Your task to perform on an android device: toggle priority inbox in the gmail app Image 0: 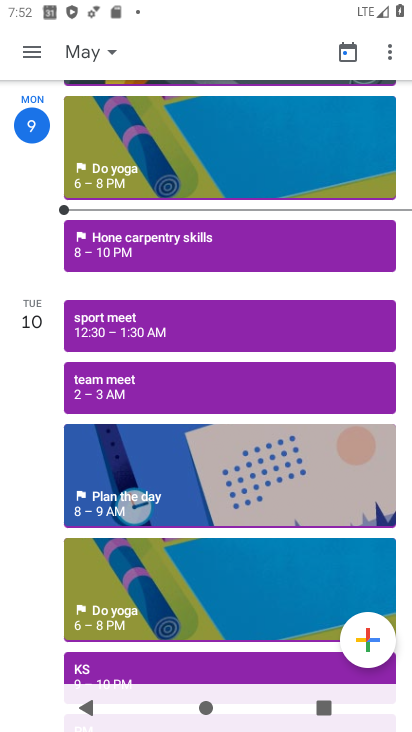
Step 0: press home button
Your task to perform on an android device: toggle priority inbox in the gmail app Image 1: 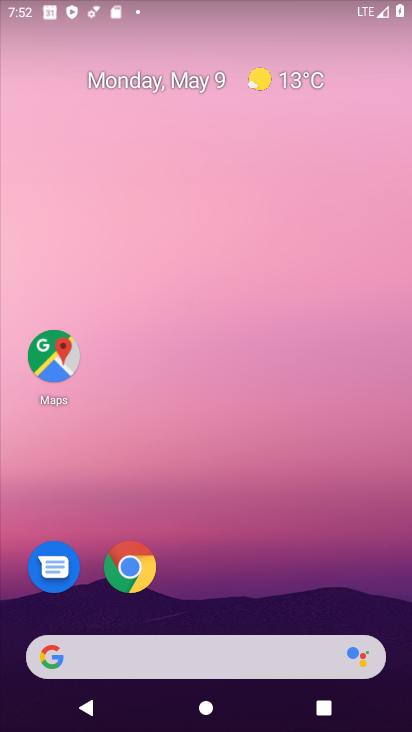
Step 1: drag from (202, 545) to (201, 79)
Your task to perform on an android device: toggle priority inbox in the gmail app Image 2: 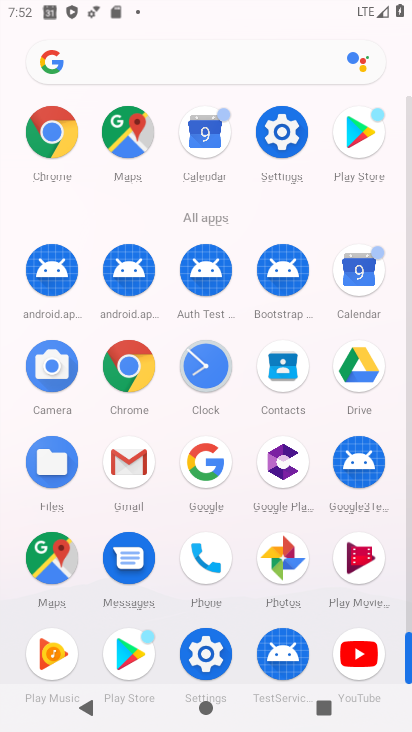
Step 2: click (135, 458)
Your task to perform on an android device: toggle priority inbox in the gmail app Image 3: 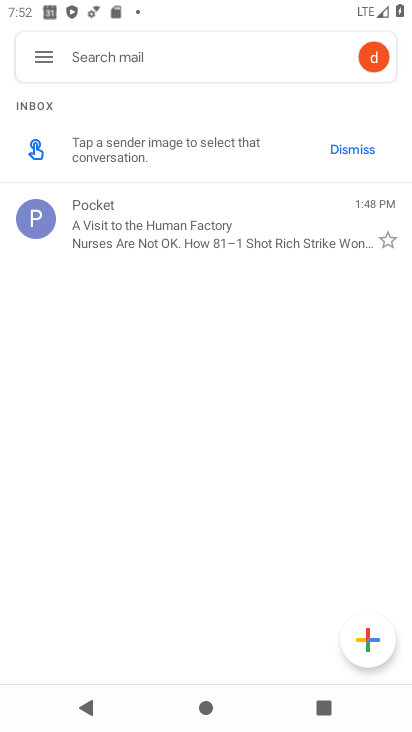
Step 3: click (46, 58)
Your task to perform on an android device: toggle priority inbox in the gmail app Image 4: 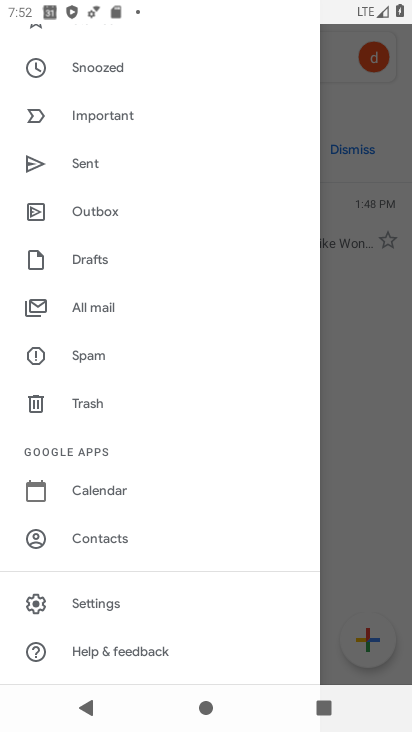
Step 4: click (99, 596)
Your task to perform on an android device: toggle priority inbox in the gmail app Image 5: 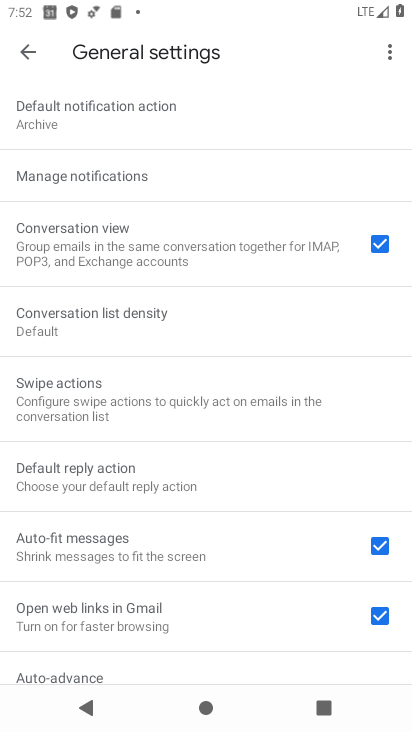
Step 5: click (29, 40)
Your task to perform on an android device: toggle priority inbox in the gmail app Image 6: 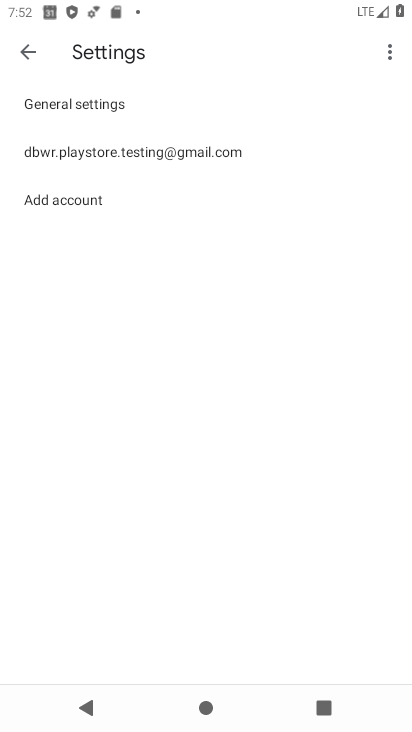
Step 6: click (102, 142)
Your task to perform on an android device: toggle priority inbox in the gmail app Image 7: 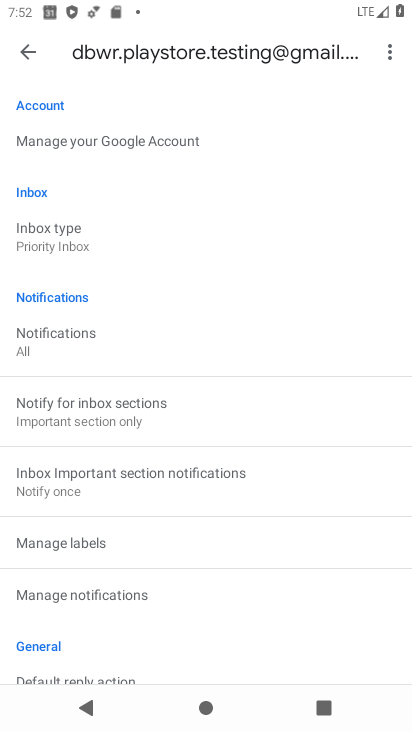
Step 7: click (47, 227)
Your task to perform on an android device: toggle priority inbox in the gmail app Image 8: 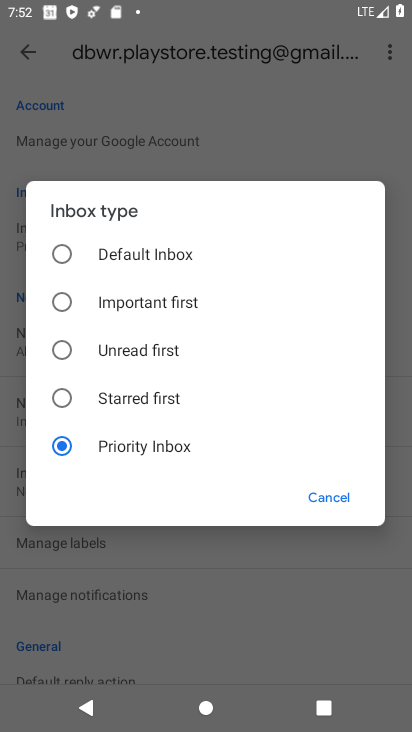
Step 8: click (72, 246)
Your task to perform on an android device: toggle priority inbox in the gmail app Image 9: 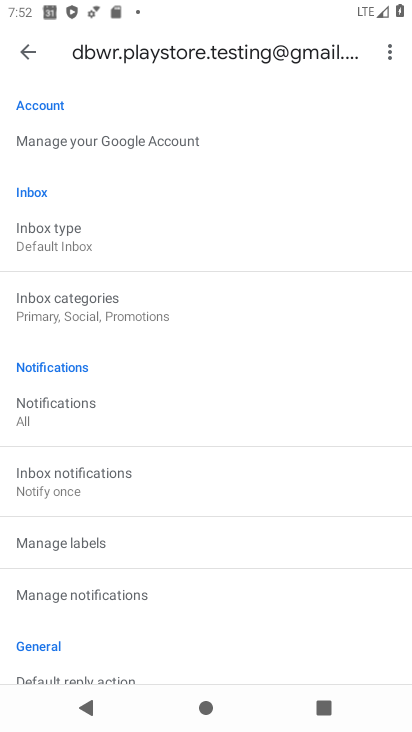
Step 9: task complete